Your task to perform on an android device: install app "LiveIn - Share Your Moment" Image 0: 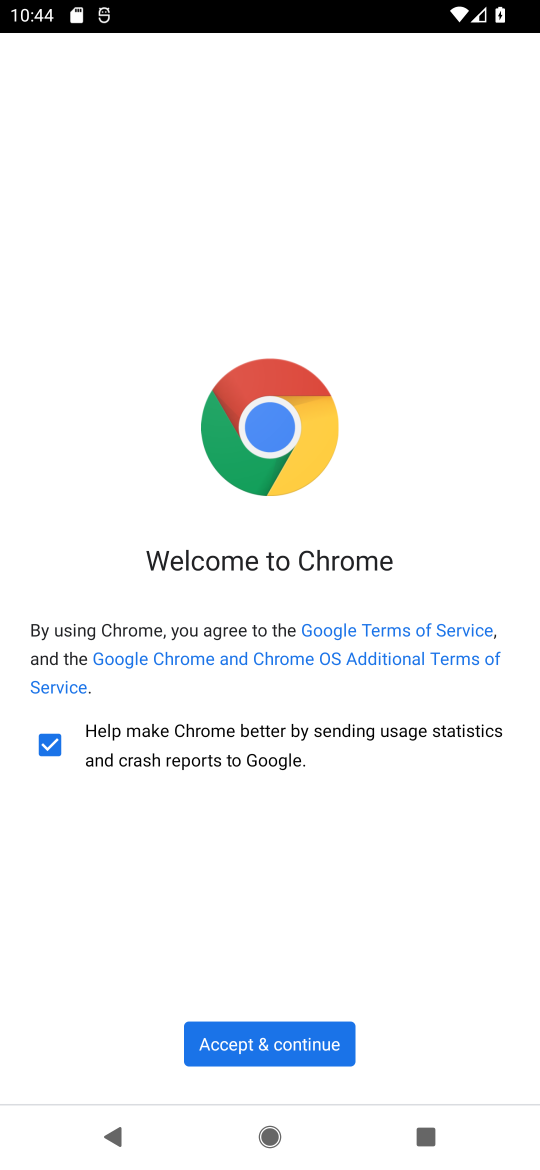
Step 0: press home button
Your task to perform on an android device: install app "LiveIn - Share Your Moment" Image 1: 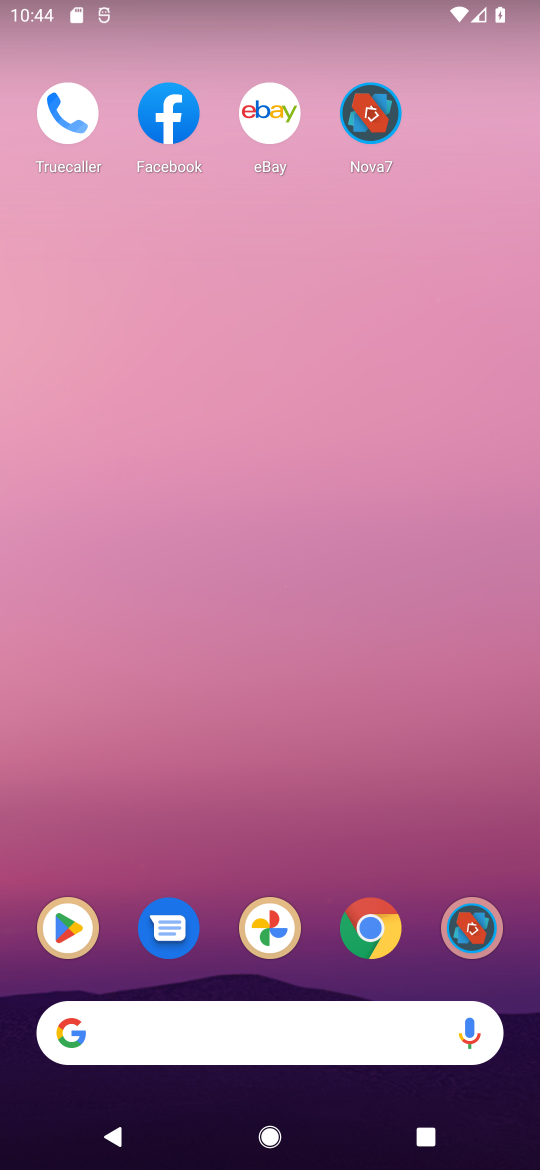
Step 1: click (80, 911)
Your task to perform on an android device: install app "LiveIn - Share Your Moment" Image 2: 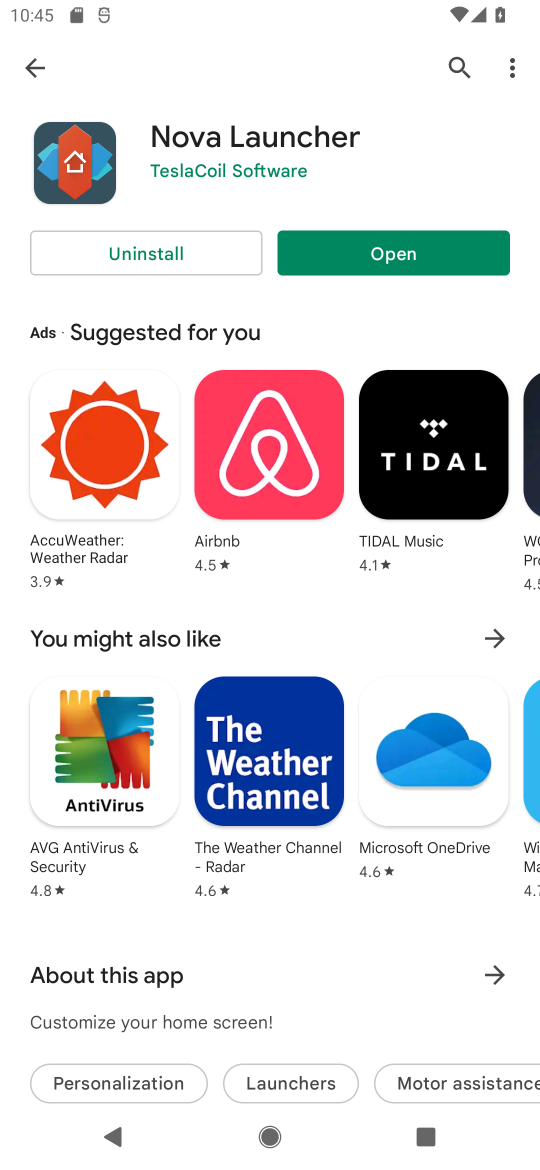
Step 2: click (452, 61)
Your task to perform on an android device: install app "LiveIn - Share Your Moment" Image 3: 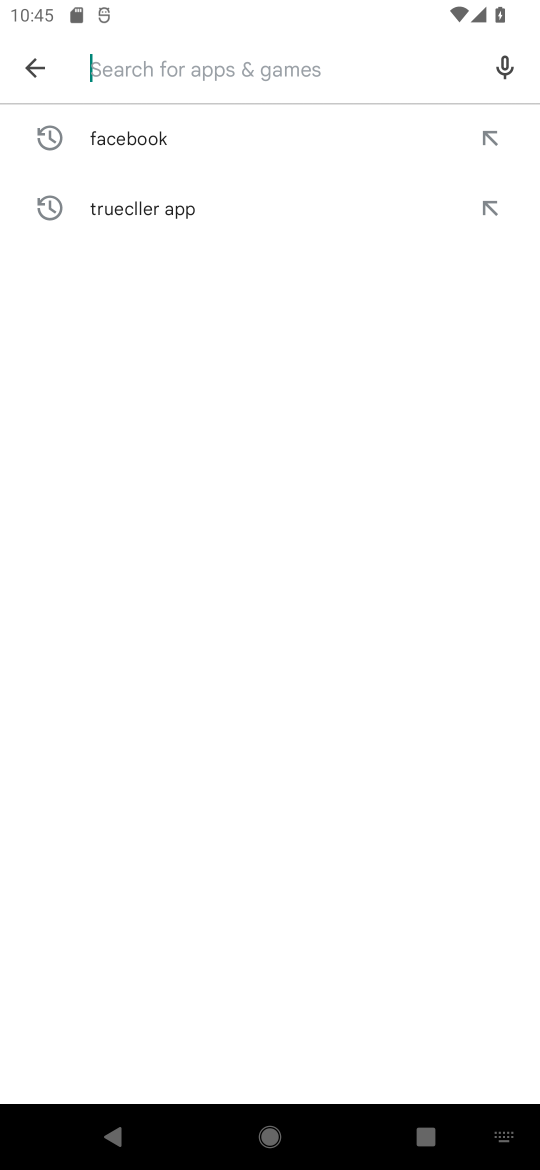
Step 3: type "LiveIn - share your moment"
Your task to perform on an android device: install app "LiveIn - Share Your Moment" Image 4: 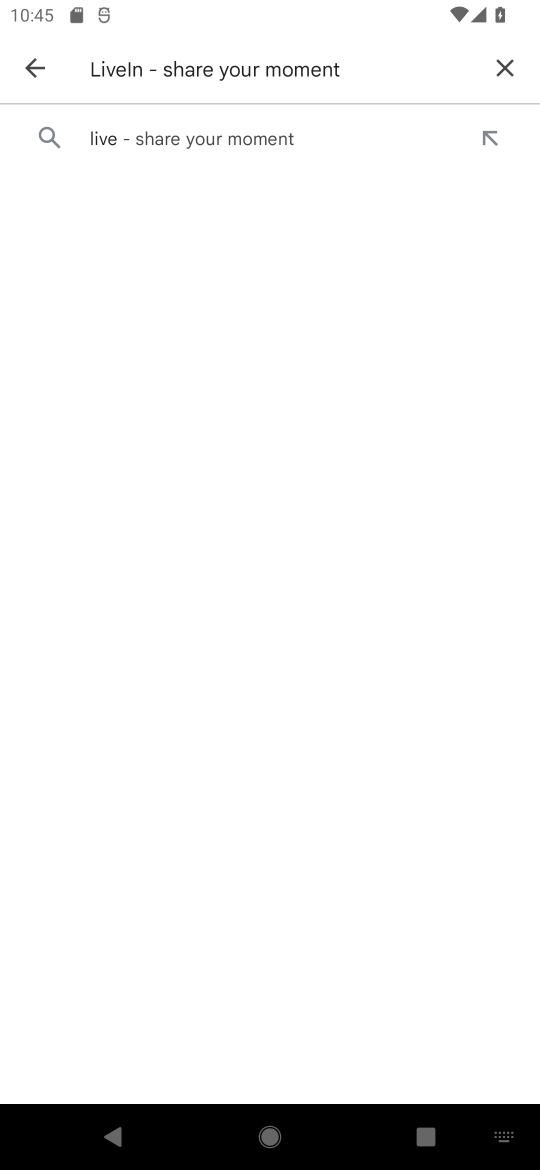
Step 4: click (221, 152)
Your task to perform on an android device: install app "LiveIn - Share Your Moment" Image 5: 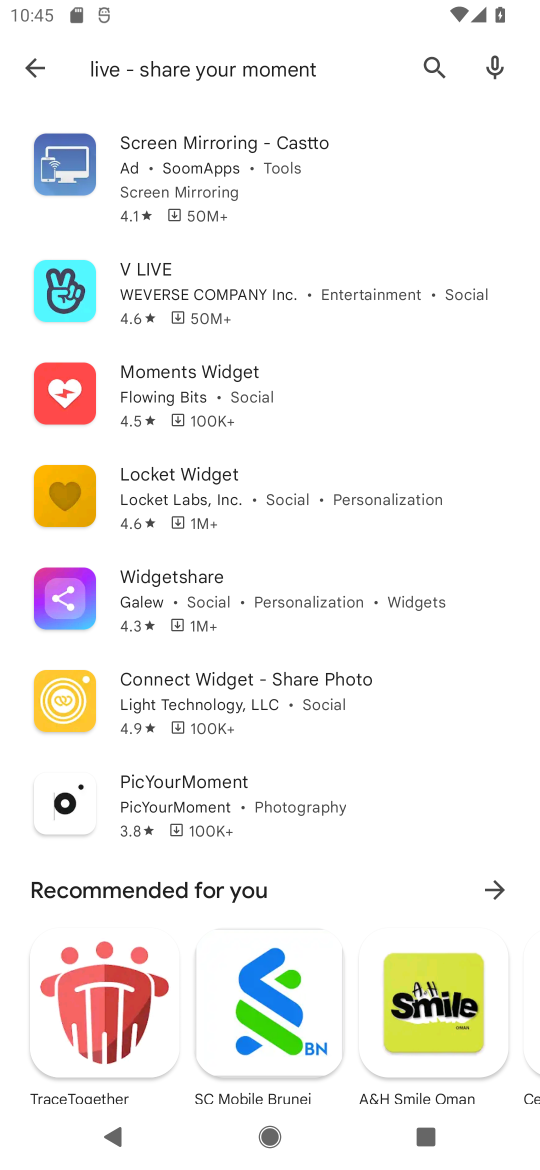
Step 5: task complete